Your task to perform on an android device: Search for razer blade on target, select the first entry, add it to the cart, then select checkout. Image 0: 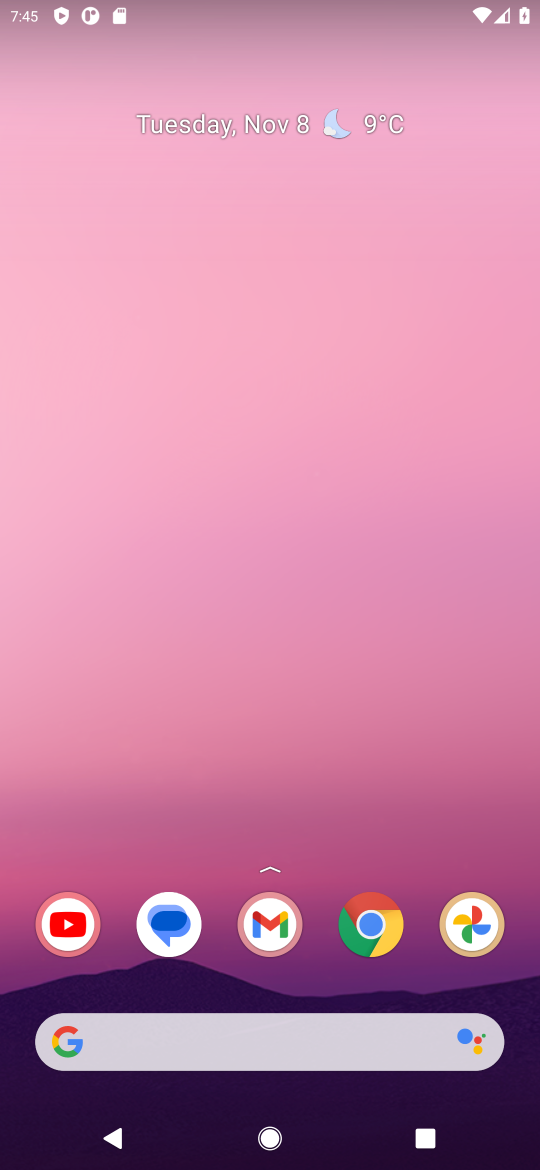
Step 0: click (227, 1035)
Your task to perform on an android device: Search for razer blade on target, select the first entry, add it to the cart, then select checkout. Image 1: 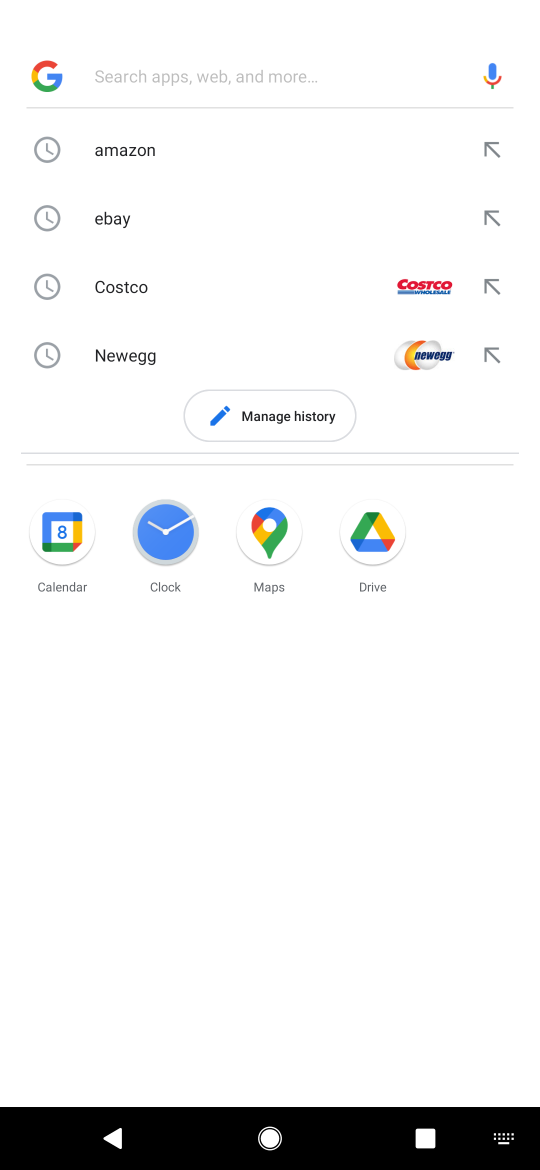
Step 1: type "target"
Your task to perform on an android device: Search for razer blade on target, select the first entry, add it to the cart, then select checkout. Image 2: 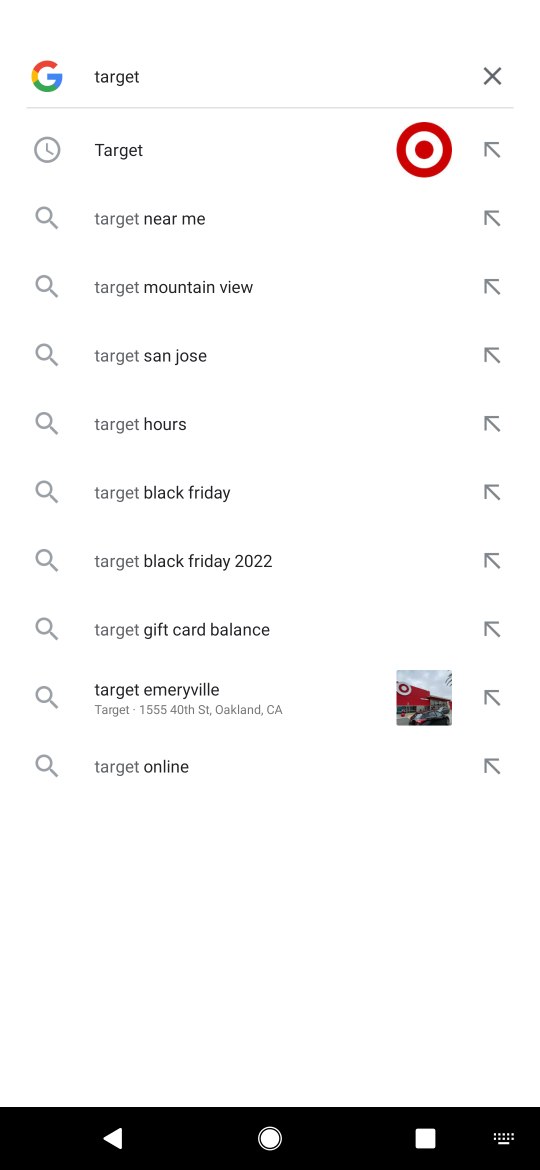
Step 2: click (255, 154)
Your task to perform on an android device: Search for razer blade on target, select the first entry, add it to the cart, then select checkout. Image 3: 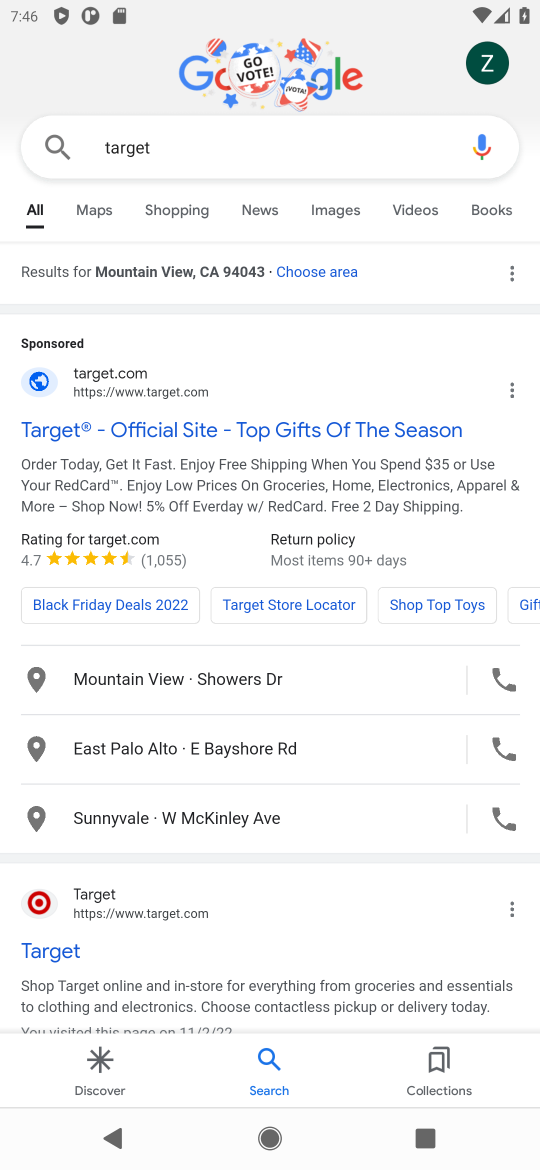
Step 3: click (67, 432)
Your task to perform on an android device: Search for razer blade on target, select the first entry, add it to the cart, then select checkout. Image 4: 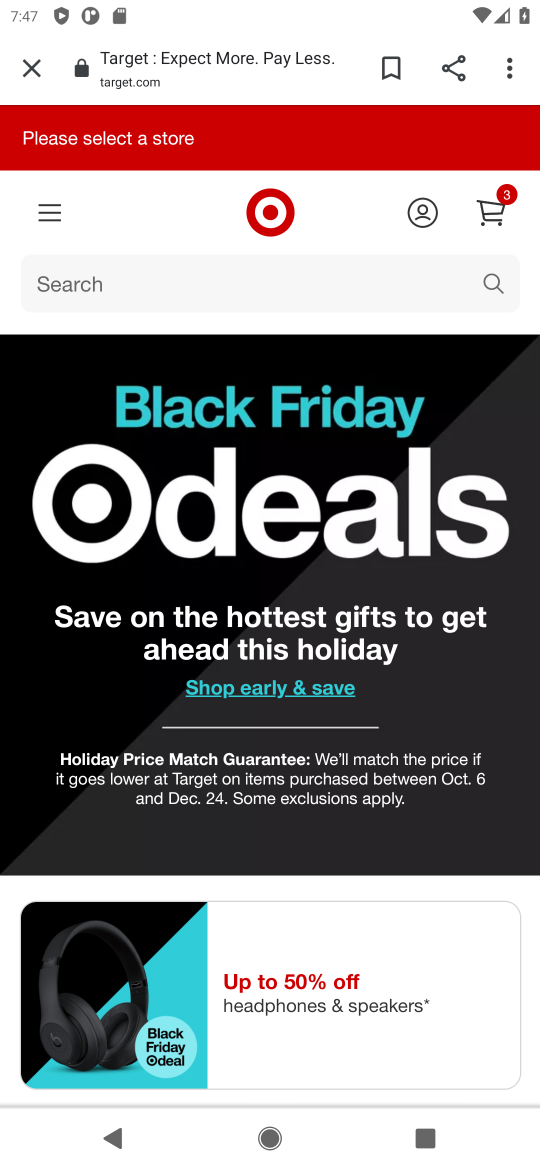
Step 4: click (260, 272)
Your task to perform on an android device: Search for razer blade on target, select the first entry, add it to the cart, then select checkout. Image 5: 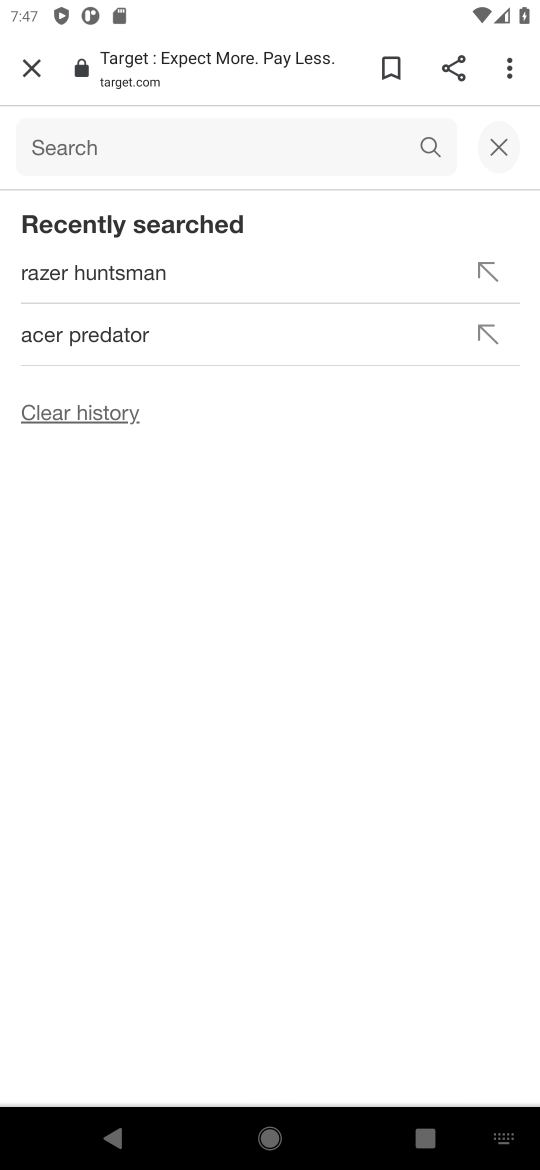
Step 5: type " razer blade "
Your task to perform on an android device: Search for razer blade on target, select the first entry, add it to the cart, then select checkout. Image 6: 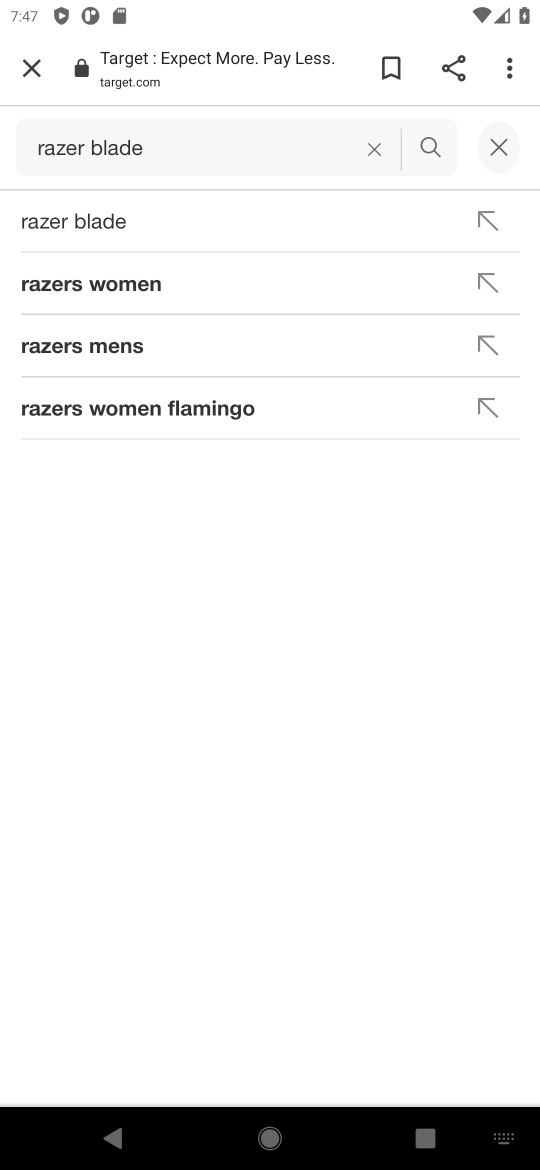
Step 6: click (41, 229)
Your task to perform on an android device: Search for razer blade on target, select the first entry, add it to the cart, then select checkout. Image 7: 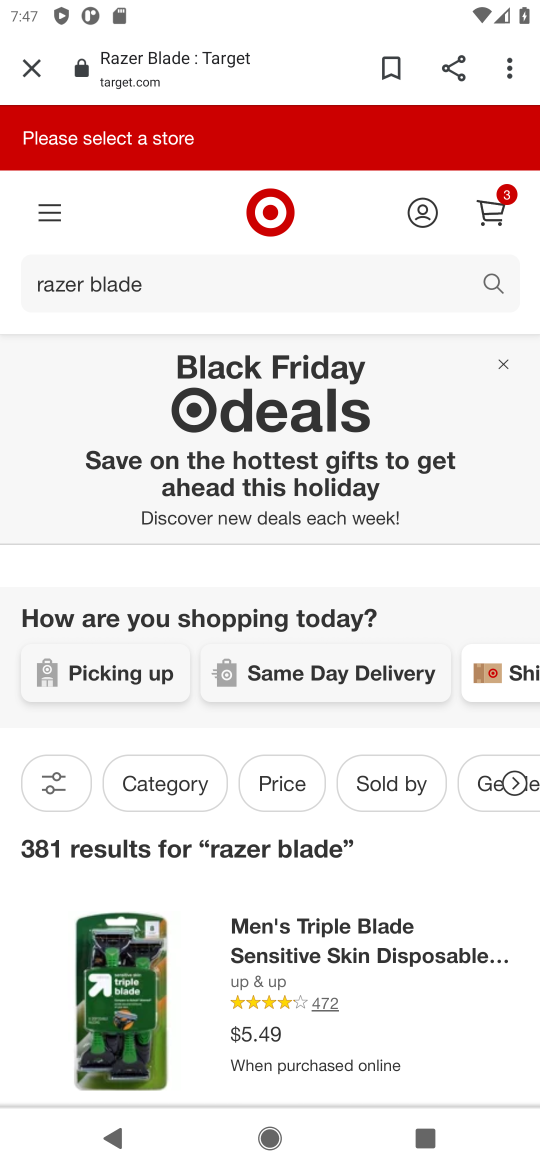
Step 7: click (250, 957)
Your task to perform on an android device: Search for razer blade on target, select the first entry, add it to the cart, then select checkout. Image 8: 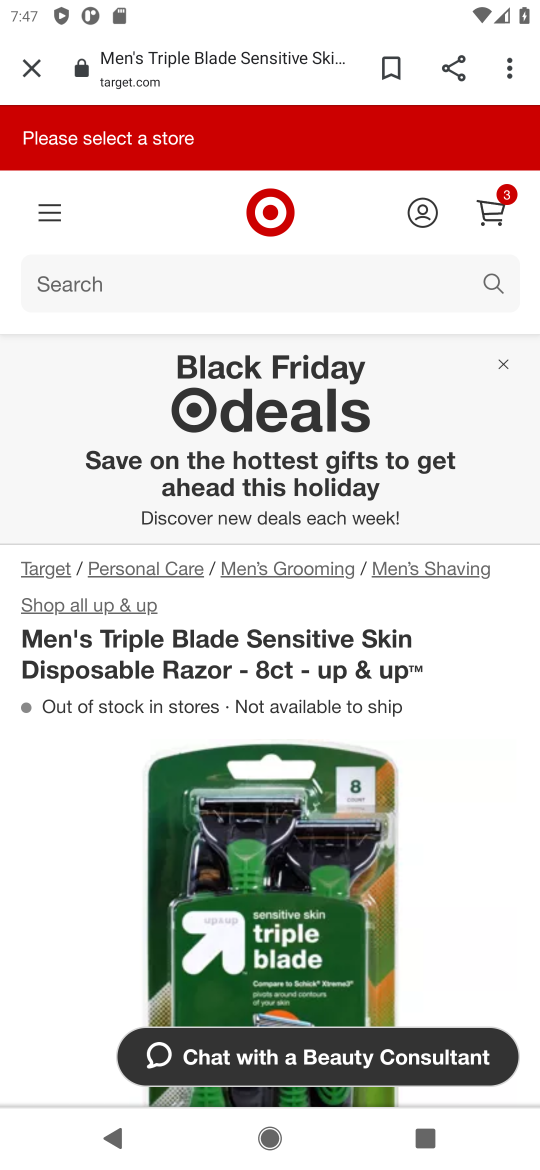
Step 8: drag from (341, 950) to (475, 298)
Your task to perform on an android device: Search for razer blade on target, select the first entry, add it to the cart, then select checkout. Image 9: 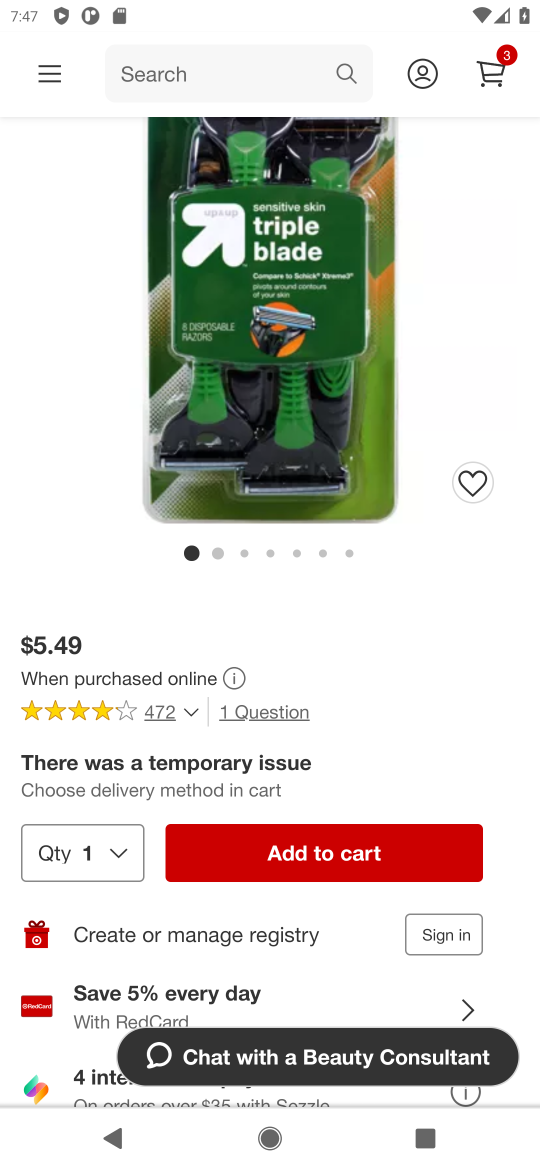
Step 9: click (280, 850)
Your task to perform on an android device: Search for razer blade on target, select the first entry, add it to the cart, then select checkout. Image 10: 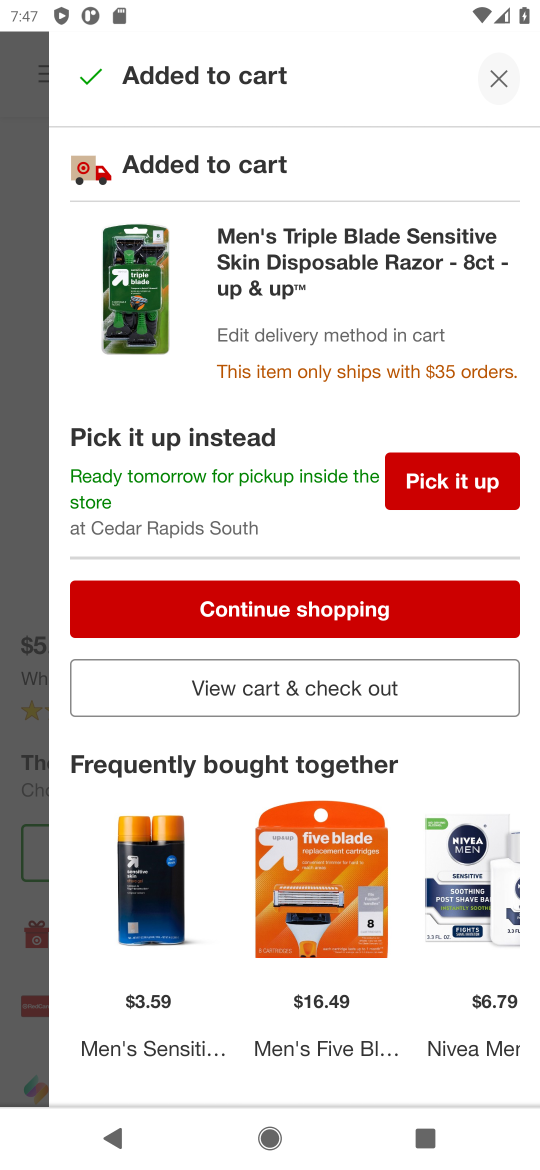
Step 10: click (495, 71)
Your task to perform on an android device: Search for razer blade on target, select the first entry, add it to the cart, then select checkout. Image 11: 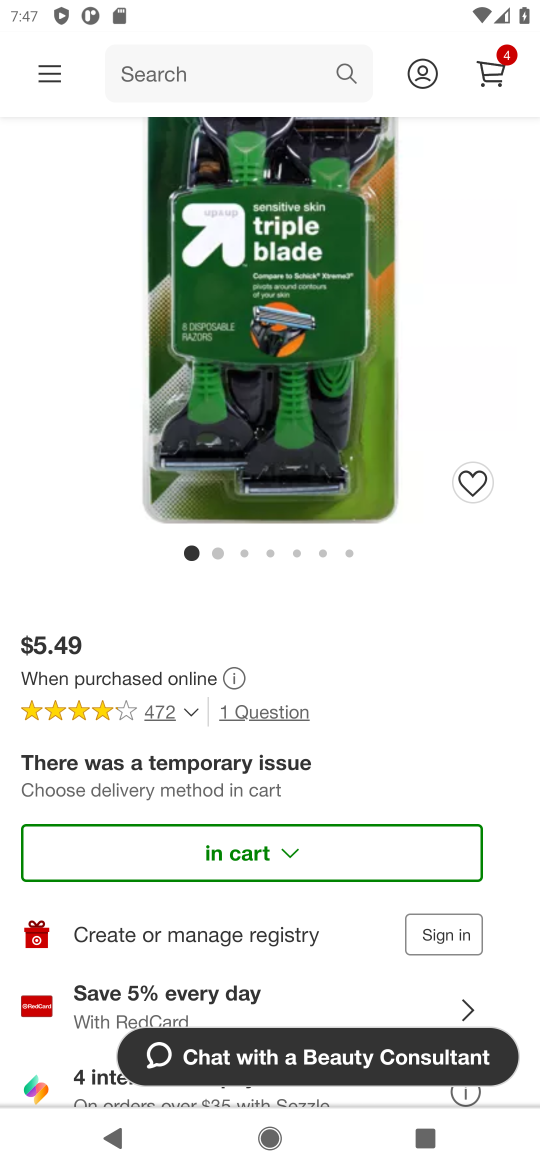
Step 11: click (497, 65)
Your task to perform on an android device: Search for razer blade on target, select the first entry, add it to the cart, then select checkout. Image 12: 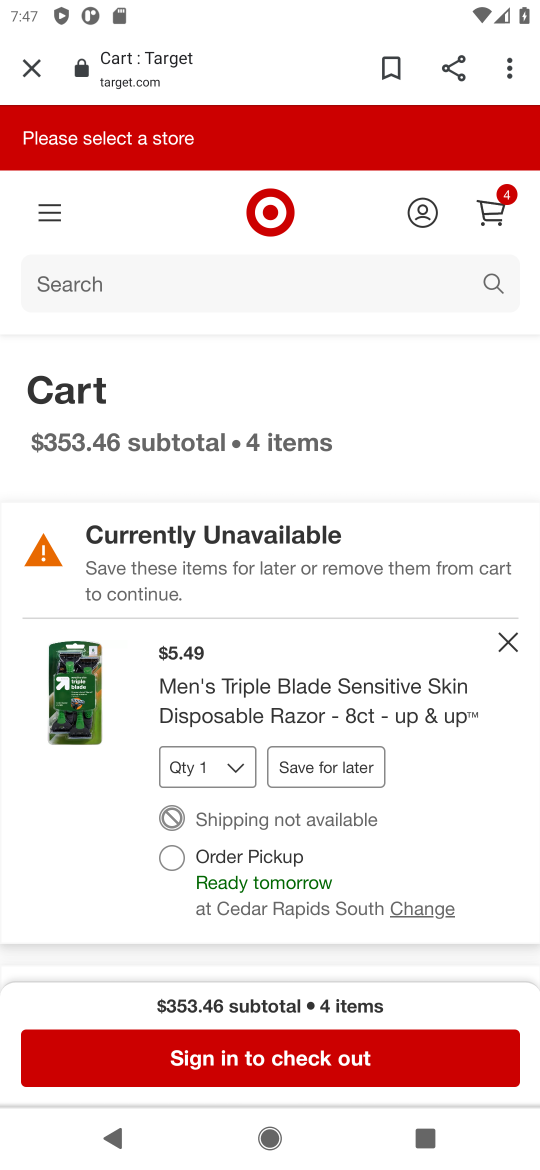
Step 12: click (234, 1056)
Your task to perform on an android device: Search for razer blade on target, select the first entry, add it to the cart, then select checkout. Image 13: 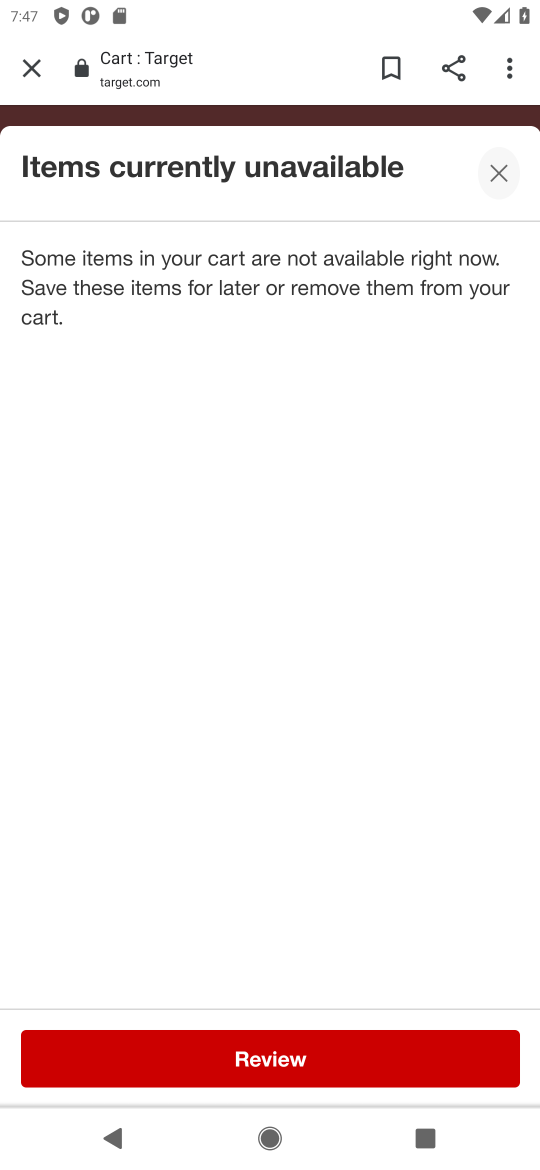
Step 13: task complete